Your task to perform on an android device: Search for Mexican restaurants on Maps Image 0: 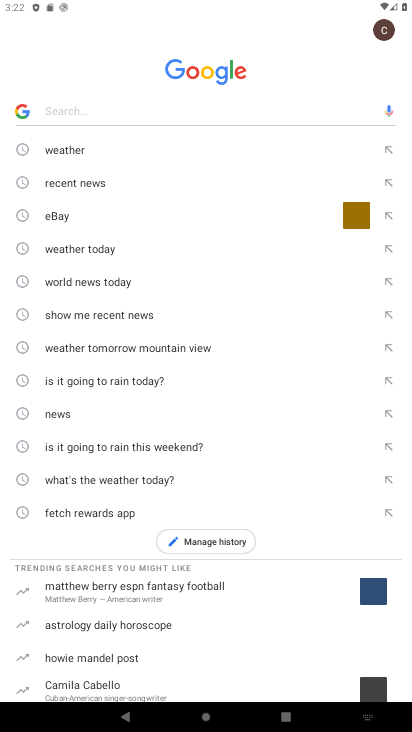
Step 0: press home button
Your task to perform on an android device: Search for Mexican restaurants on Maps Image 1: 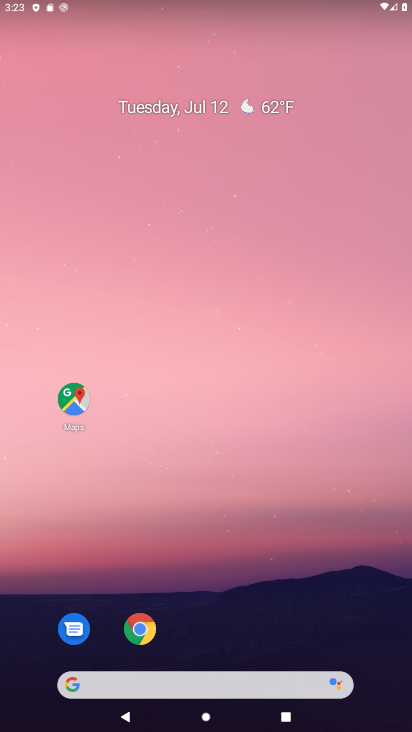
Step 1: click (57, 394)
Your task to perform on an android device: Search for Mexican restaurants on Maps Image 2: 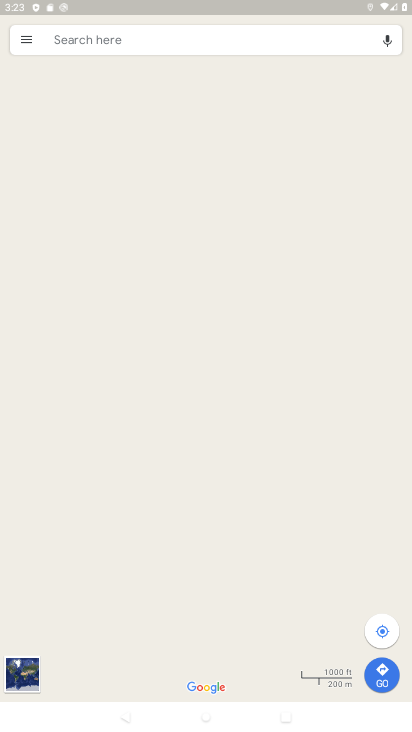
Step 2: click (173, 51)
Your task to perform on an android device: Search for Mexican restaurants on Maps Image 3: 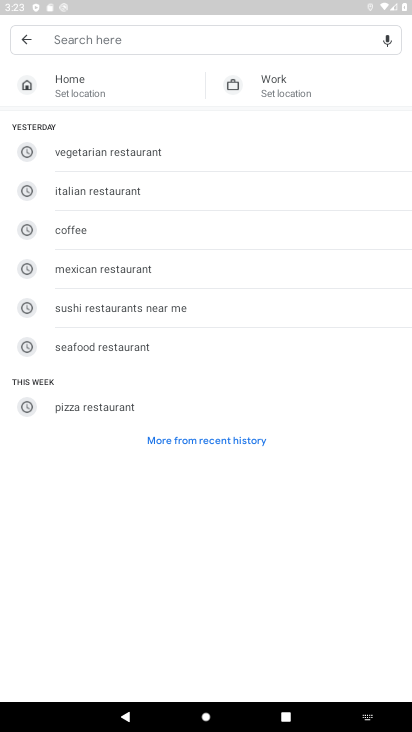
Step 3: click (83, 270)
Your task to perform on an android device: Search for Mexican restaurants on Maps Image 4: 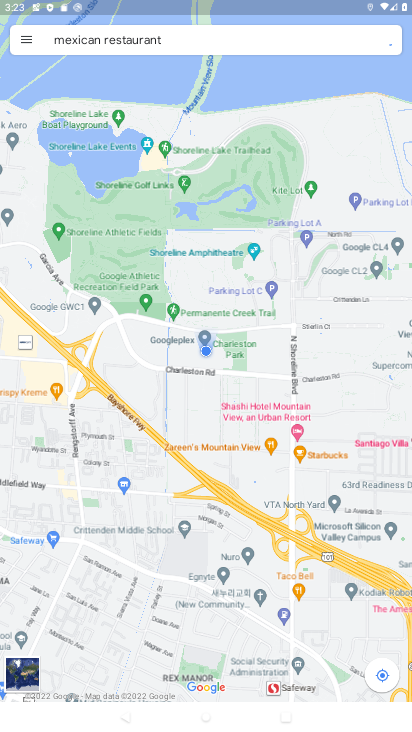
Step 4: task complete